Your task to perform on an android device: allow cookies in the chrome app Image 0: 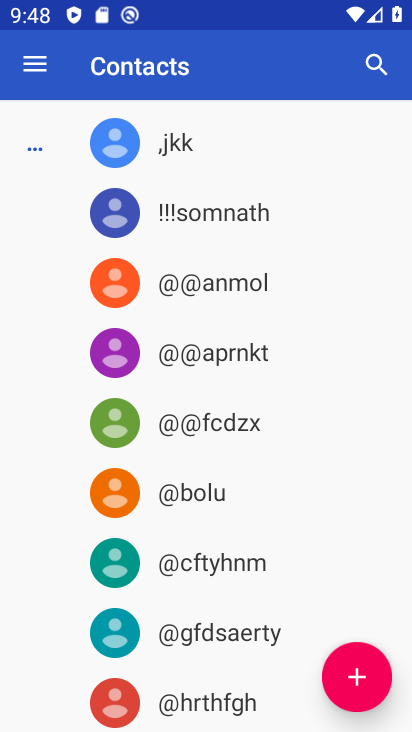
Step 0: press home button
Your task to perform on an android device: allow cookies in the chrome app Image 1: 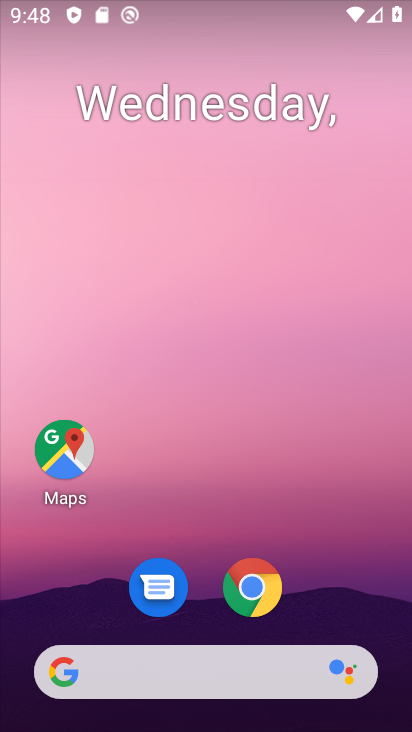
Step 1: click (253, 592)
Your task to perform on an android device: allow cookies in the chrome app Image 2: 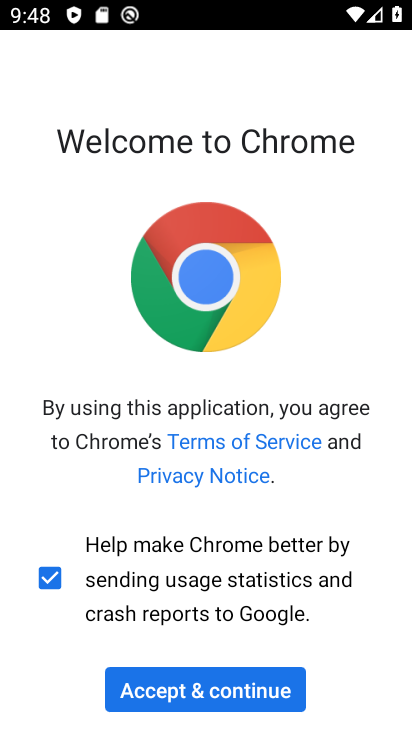
Step 2: click (183, 703)
Your task to perform on an android device: allow cookies in the chrome app Image 3: 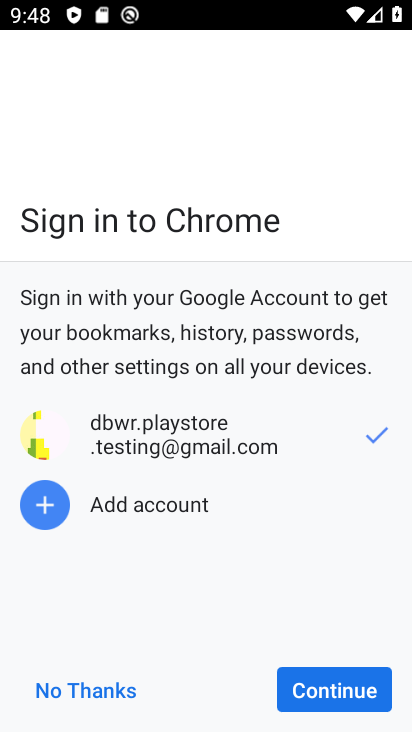
Step 3: click (309, 701)
Your task to perform on an android device: allow cookies in the chrome app Image 4: 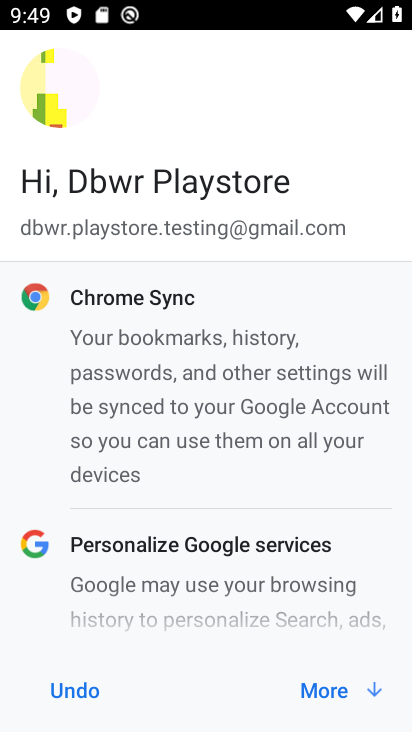
Step 4: click (312, 692)
Your task to perform on an android device: allow cookies in the chrome app Image 5: 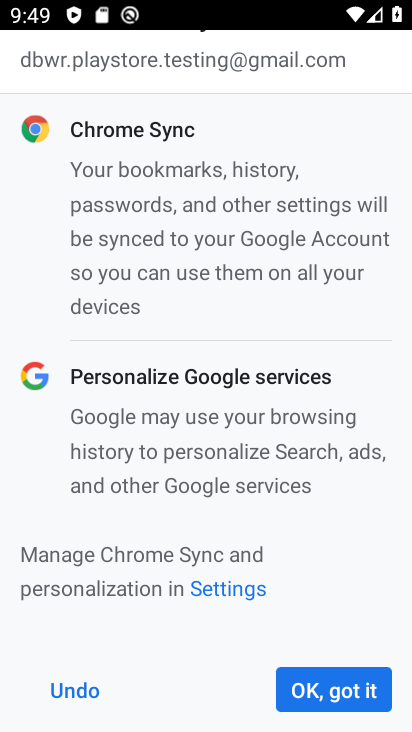
Step 5: click (312, 692)
Your task to perform on an android device: allow cookies in the chrome app Image 6: 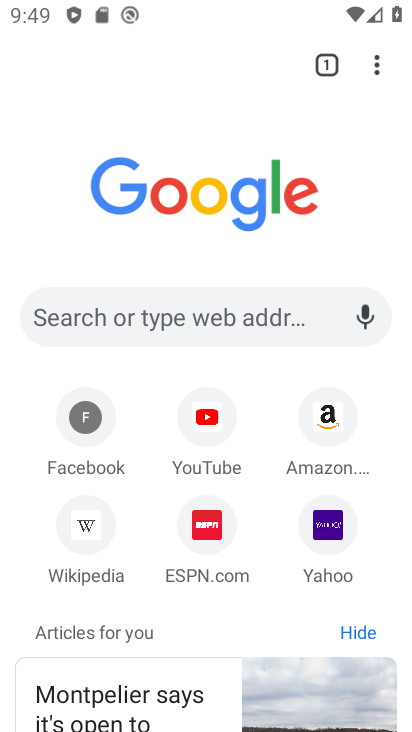
Step 6: drag from (380, 66) to (198, 549)
Your task to perform on an android device: allow cookies in the chrome app Image 7: 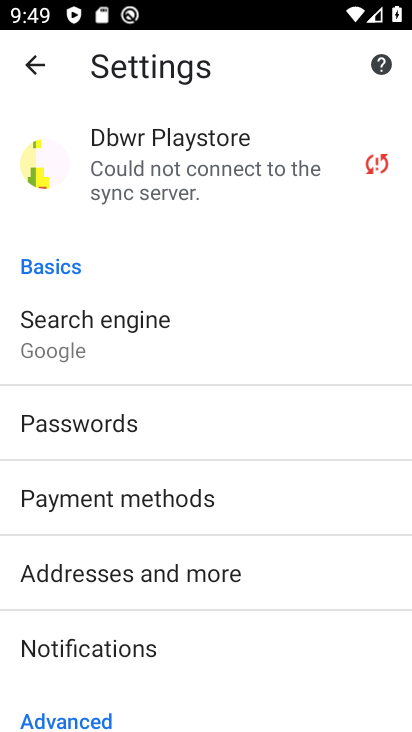
Step 7: drag from (245, 695) to (247, 369)
Your task to perform on an android device: allow cookies in the chrome app Image 8: 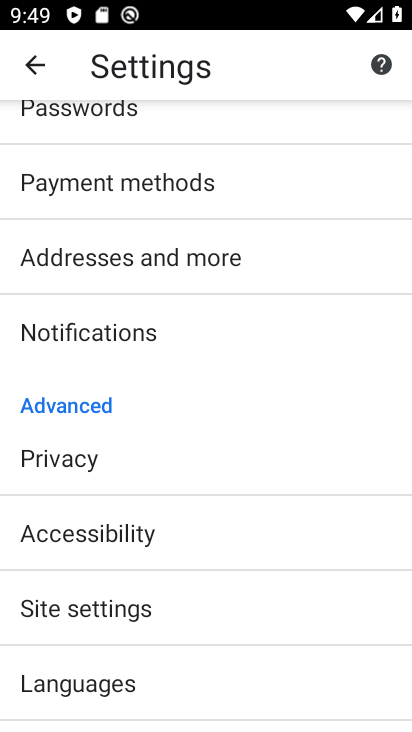
Step 8: click (109, 602)
Your task to perform on an android device: allow cookies in the chrome app Image 9: 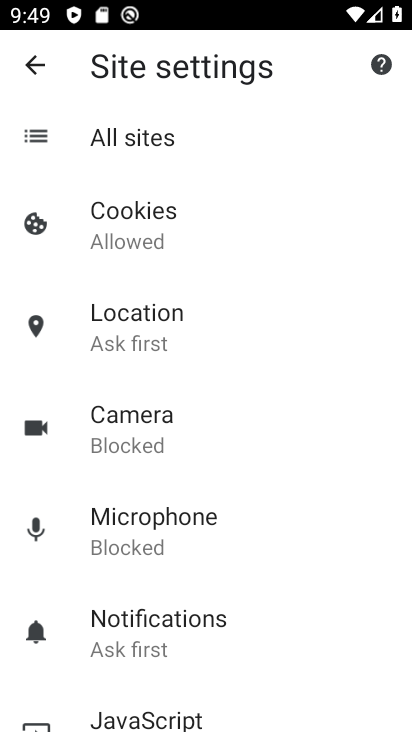
Step 9: click (143, 231)
Your task to perform on an android device: allow cookies in the chrome app Image 10: 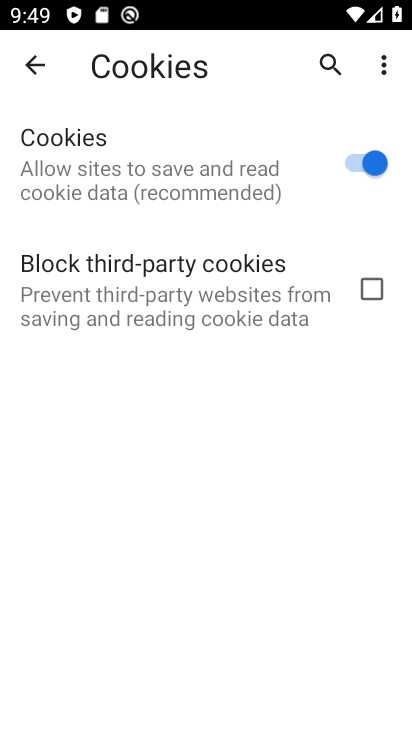
Step 10: task complete